Your task to perform on an android device: Show me popular videos on Youtube Image 0: 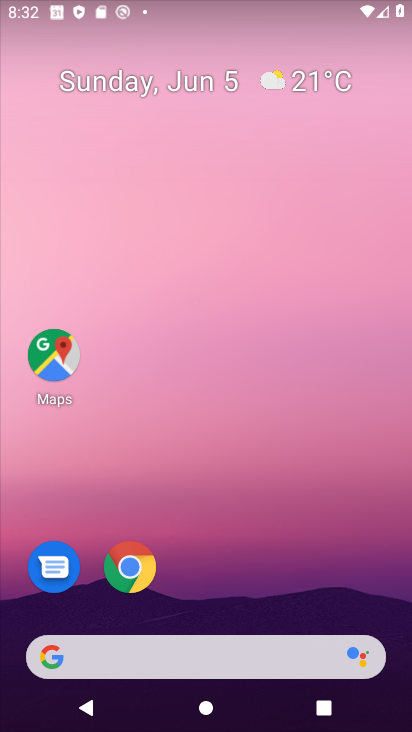
Step 0: drag from (211, 615) to (244, 372)
Your task to perform on an android device: Show me popular videos on Youtube Image 1: 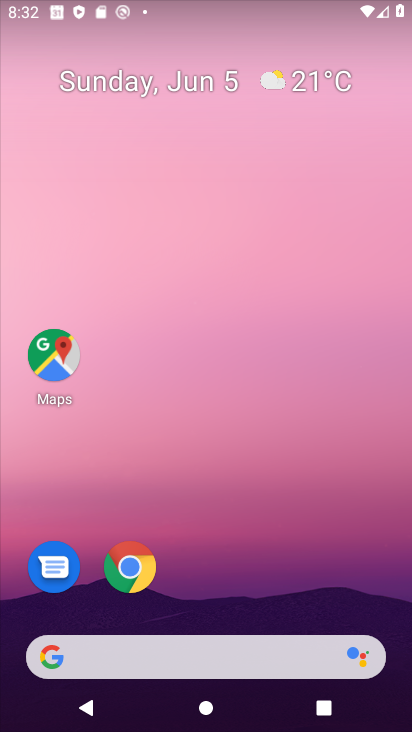
Step 1: drag from (248, 634) to (275, 323)
Your task to perform on an android device: Show me popular videos on Youtube Image 2: 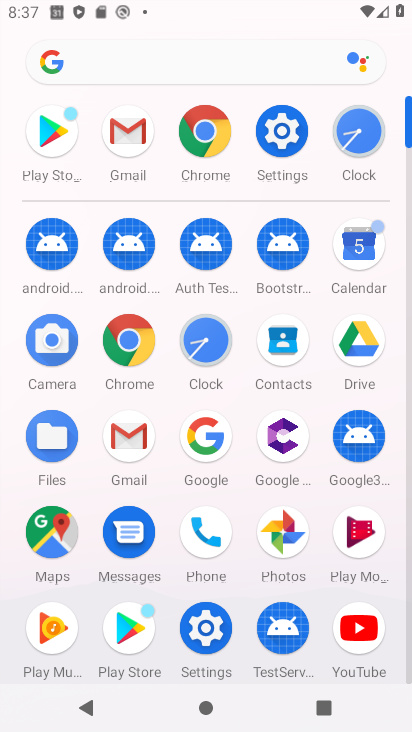
Step 2: click (367, 625)
Your task to perform on an android device: Show me popular videos on Youtube Image 3: 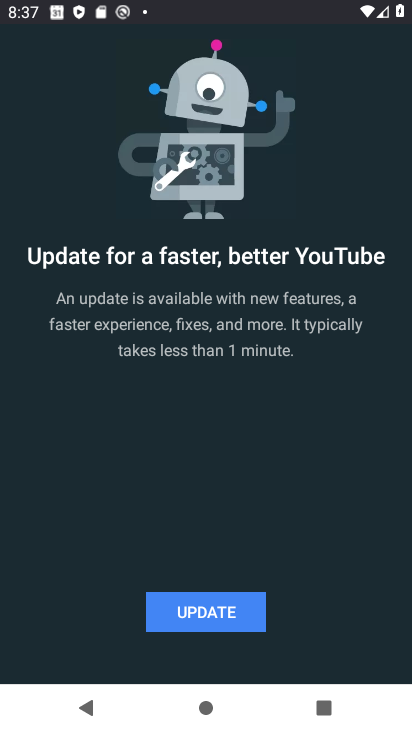
Step 3: click (214, 615)
Your task to perform on an android device: Show me popular videos on Youtube Image 4: 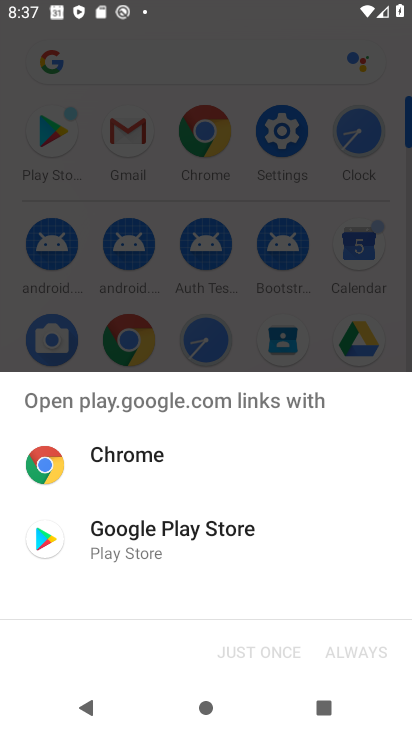
Step 4: click (185, 541)
Your task to perform on an android device: Show me popular videos on Youtube Image 5: 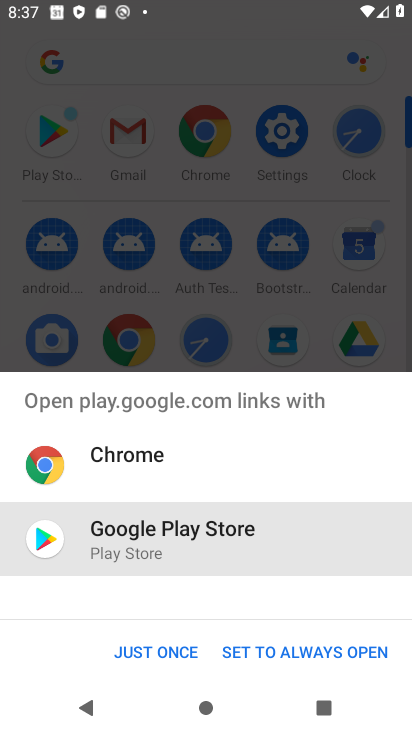
Step 5: click (328, 651)
Your task to perform on an android device: Show me popular videos on Youtube Image 6: 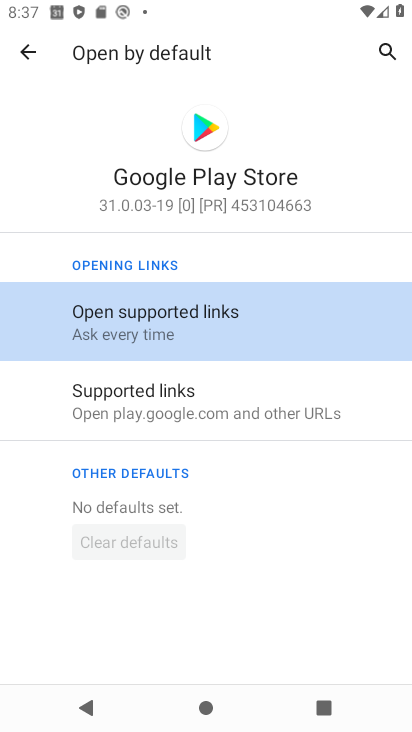
Step 6: task complete